Your task to perform on an android device: Open Amazon Image 0: 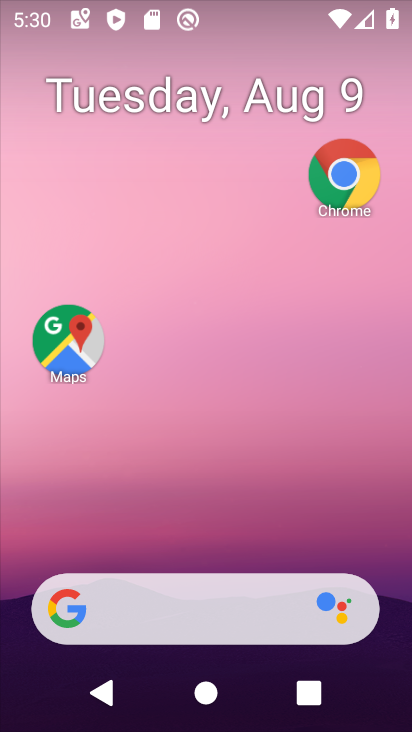
Step 0: drag from (250, 477) to (311, 252)
Your task to perform on an android device: Open Amazon Image 1: 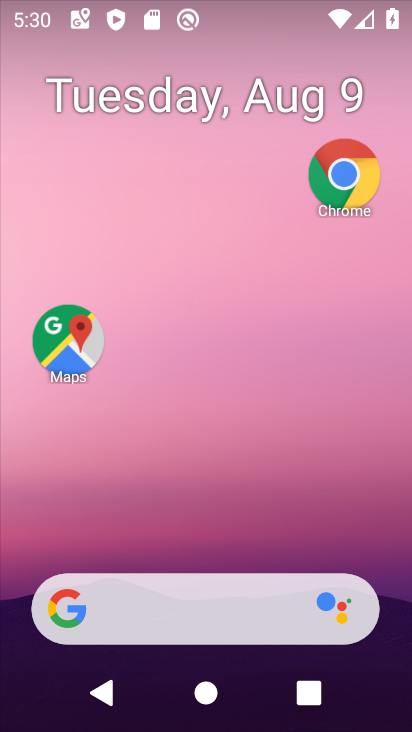
Step 1: drag from (190, 545) to (229, 102)
Your task to perform on an android device: Open Amazon Image 2: 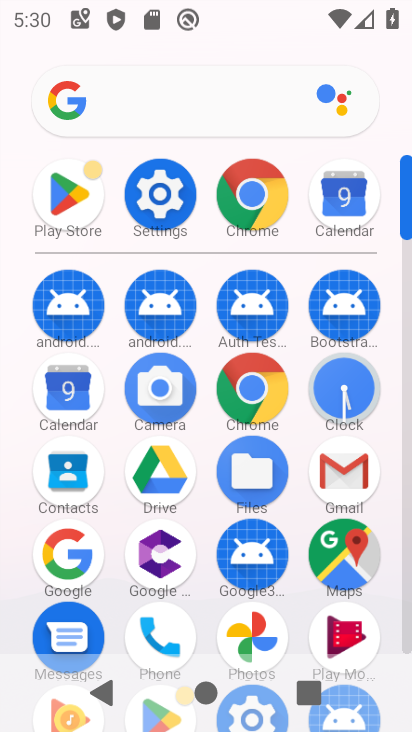
Step 2: click (249, 193)
Your task to perform on an android device: Open Amazon Image 3: 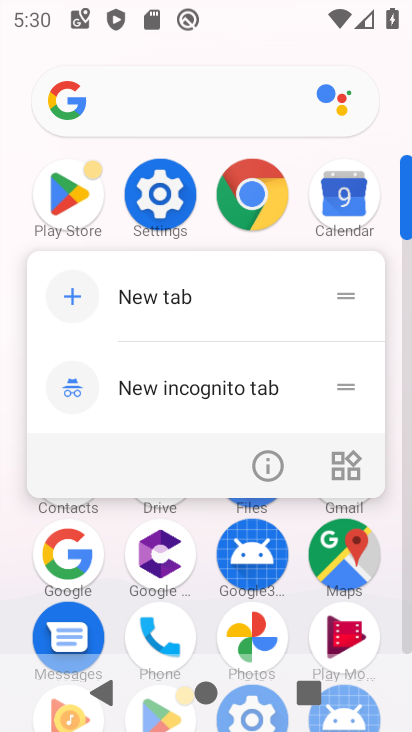
Step 3: click (264, 460)
Your task to perform on an android device: Open Amazon Image 4: 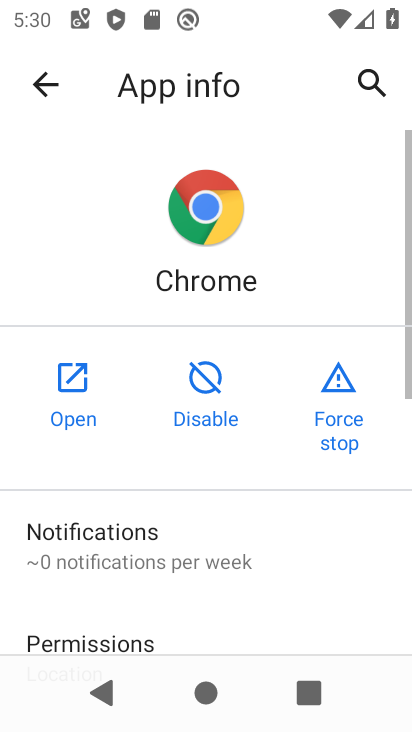
Step 4: click (59, 394)
Your task to perform on an android device: Open Amazon Image 5: 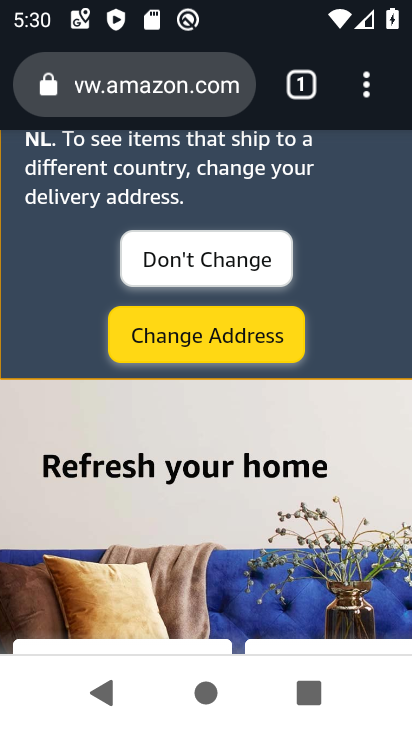
Step 5: drag from (270, 506) to (301, 291)
Your task to perform on an android device: Open Amazon Image 6: 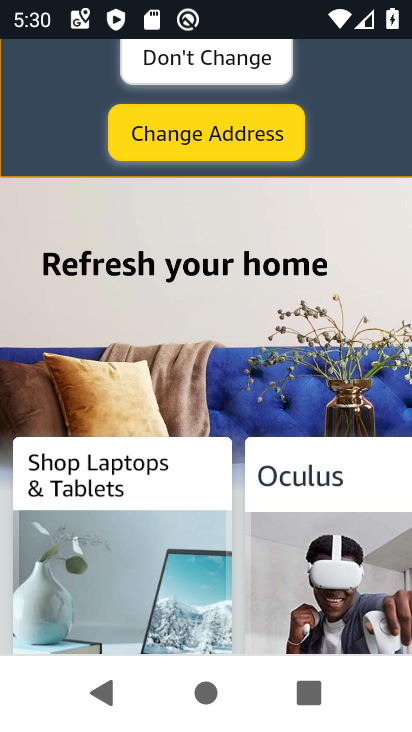
Step 6: drag from (216, 468) to (247, 381)
Your task to perform on an android device: Open Amazon Image 7: 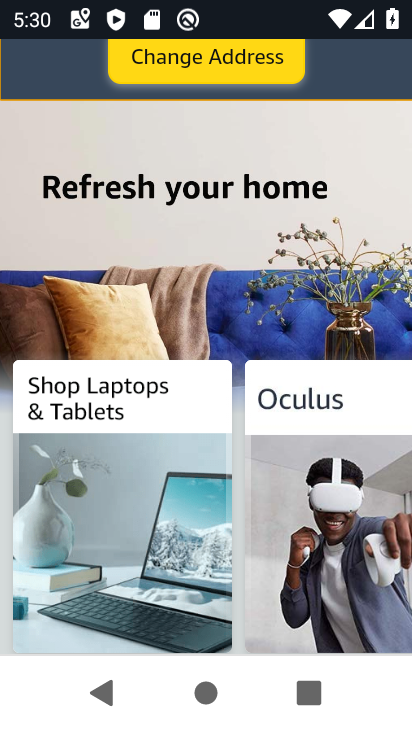
Step 7: drag from (246, 468) to (243, 291)
Your task to perform on an android device: Open Amazon Image 8: 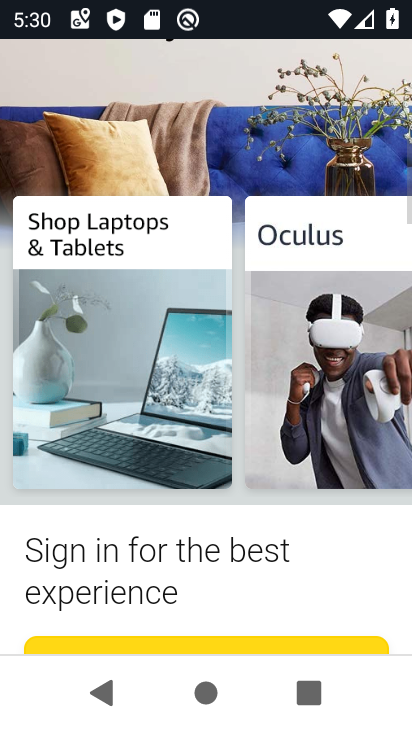
Step 8: drag from (234, 269) to (223, 632)
Your task to perform on an android device: Open Amazon Image 9: 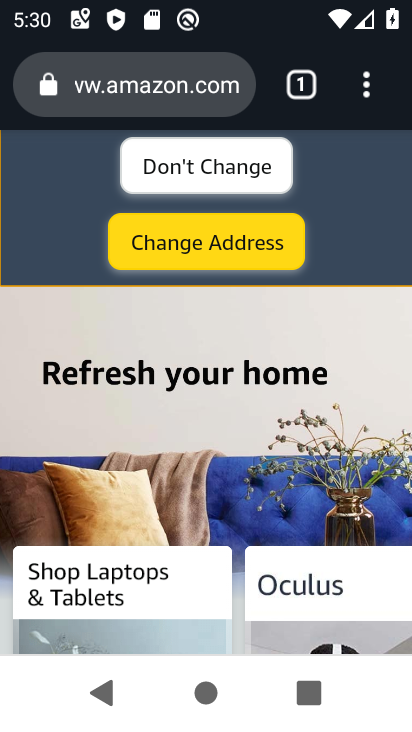
Step 9: drag from (223, 507) to (242, 351)
Your task to perform on an android device: Open Amazon Image 10: 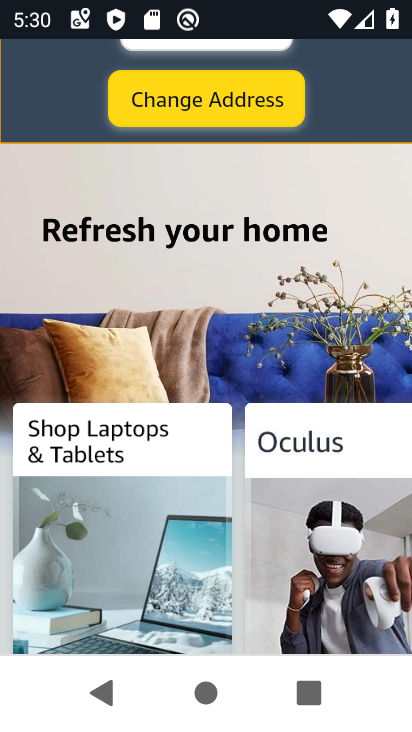
Step 10: drag from (249, 463) to (257, 304)
Your task to perform on an android device: Open Amazon Image 11: 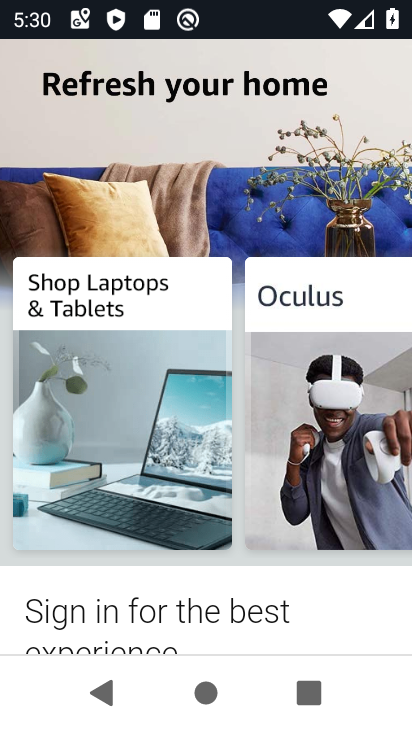
Step 11: drag from (220, 293) to (290, 633)
Your task to perform on an android device: Open Amazon Image 12: 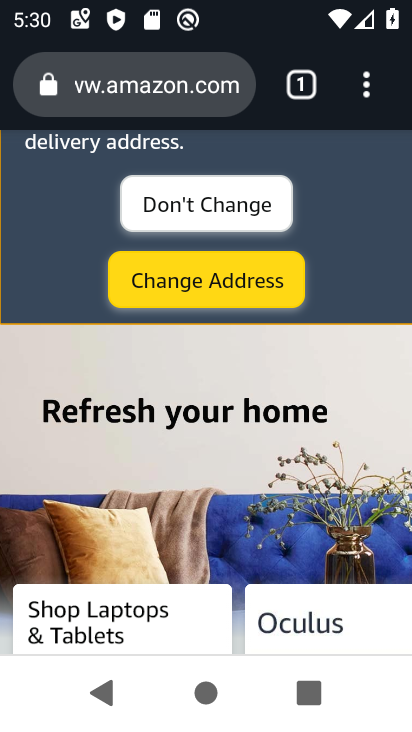
Step 12: drag from (243, 622) to (270, 460)
Your task to perform on an android device: Open Amazon Image 13: 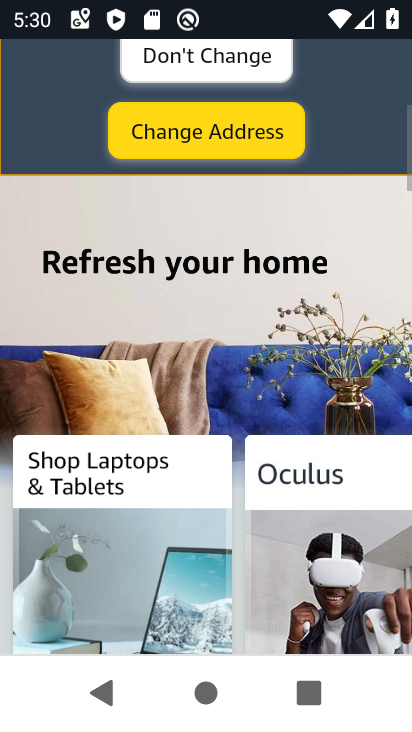
Step 13: drag from (213, 375) to (399, 585)
Your task to perform on an android device: Open Amazon Image 14: 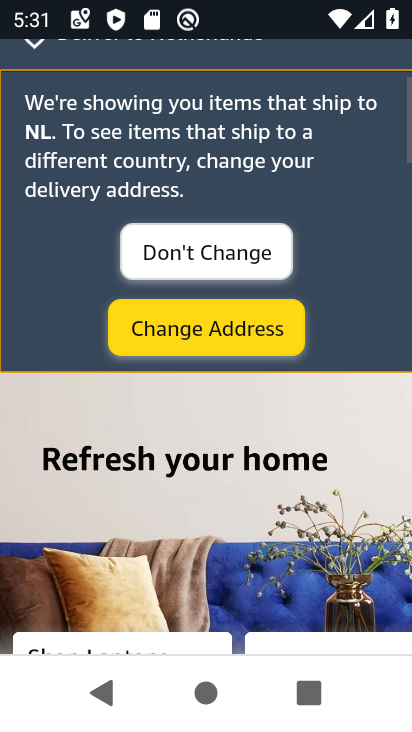
Step 14: drag from (173, 338) to (410, 699)
Your task to perform on an android device: Open Amazon Image 15: 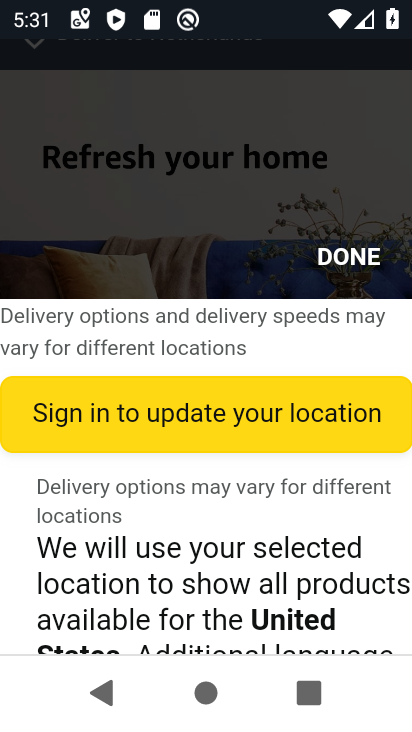
Step 15: drag from (198, 193) to (381, 612)
Your task to perform on an android device: Open Amazon Image 16: 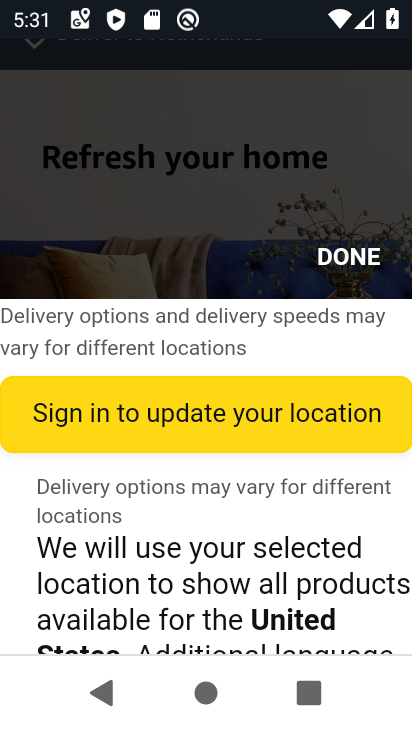
Step 16: click (347, 272)
Your task to perform on an android device: Open Amazon Image 17: 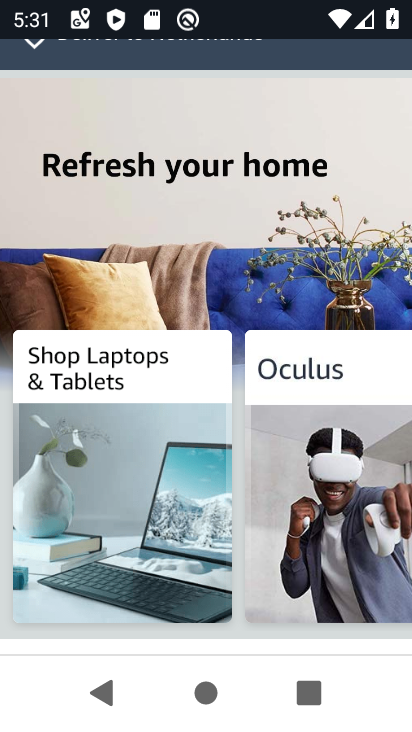
Step 17: drag from (273, 186) to (382, 724)
Your task to perform on an android device: Open Amazon Image 18: 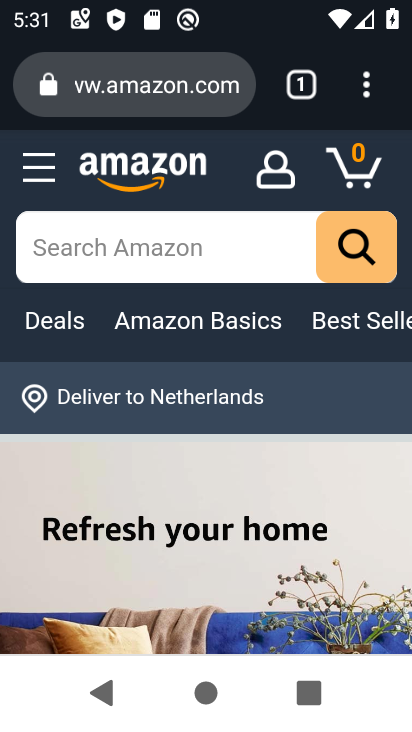
Step 18: click (342, 146)
Your task to perform on an android device: Open Amazon Image 19: 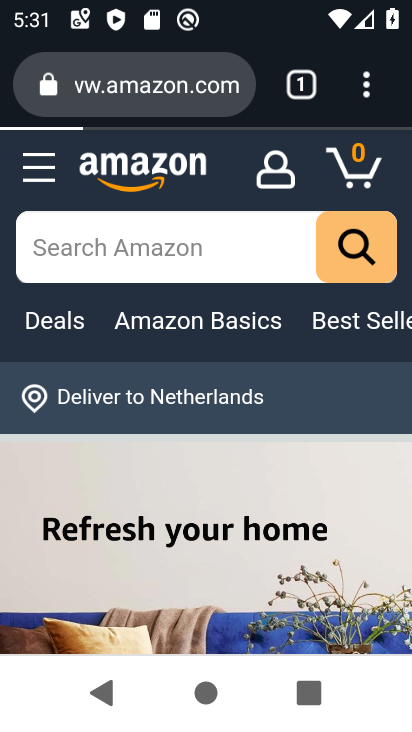
Step 19: task complete